Your task to perform on an android device: Go to ESPN.com Image 0: 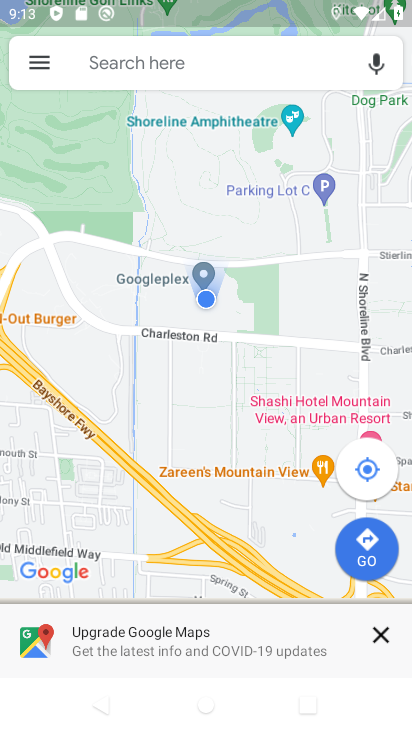
Step 0: click (348, 231)
Your task to perform on an android device: Go to ESPN.com Image 1: 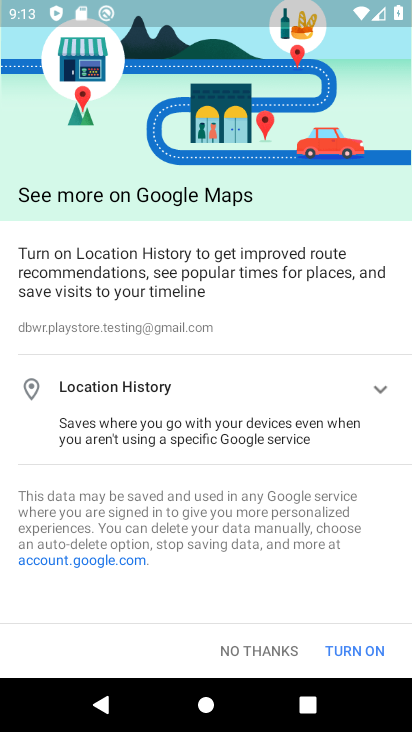
Step 1: click (264, 654)
Your task to perform on an android device: Go to ESPN.com Image 2: 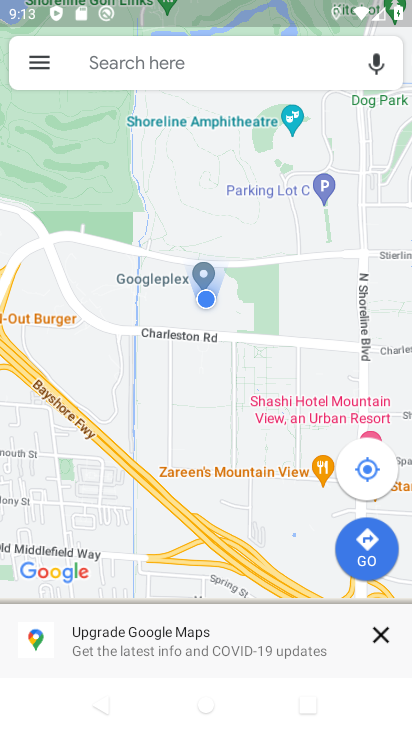
Step 2: click (226, 62)
Your task to perform on an android device: Go to ESPN.com Image 3: 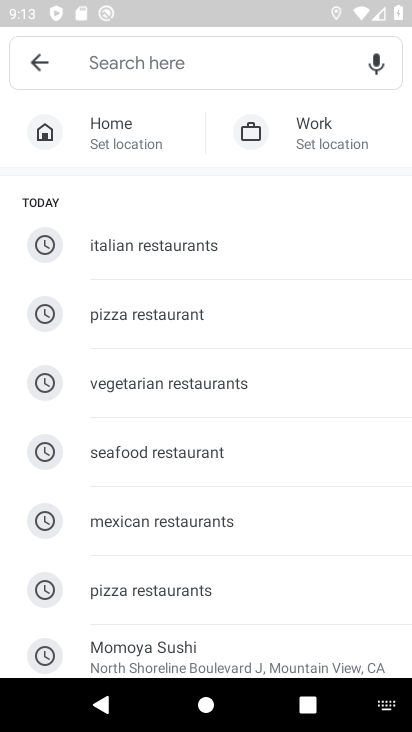
Step 3: type "espn.com"
Your task to perform on an android device: Go to ESPN.com Image 4: 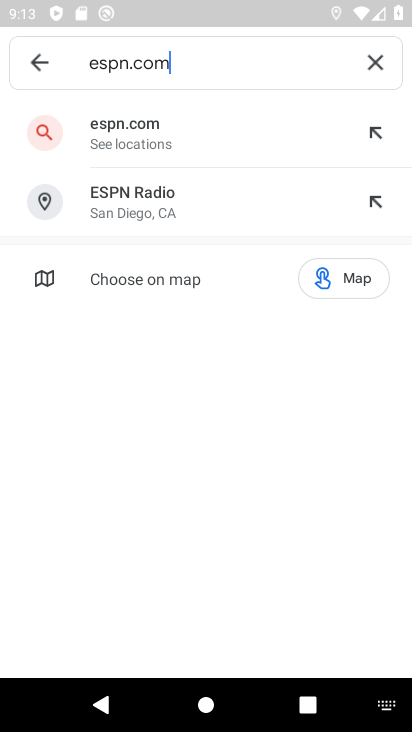
Step 4: click (145, 143)
Your task to perform on an android device: Go to ESPN.com Image 5: 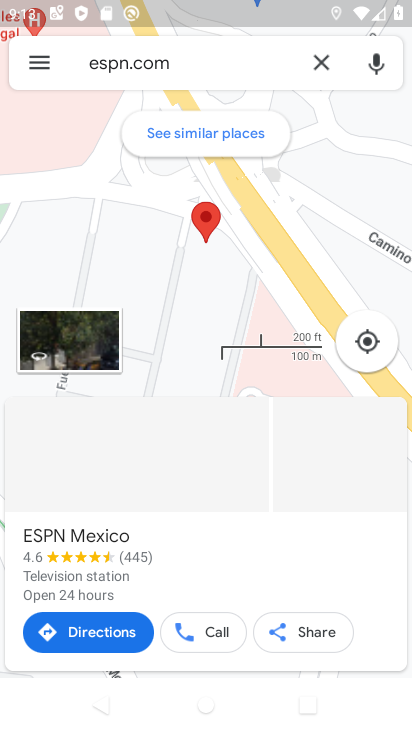
Step 5: task complete